Your task to perform on an android device: change your default location settings in chrome Image 0: 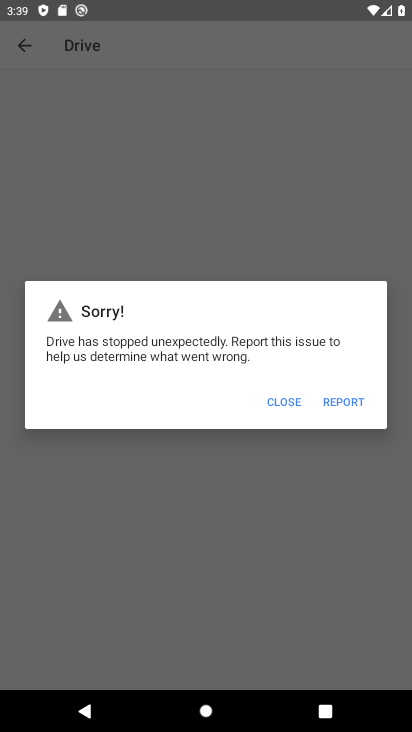
Step 0: press home button
Your task to perform on an android device: change your default location settings in chrome Image 1: 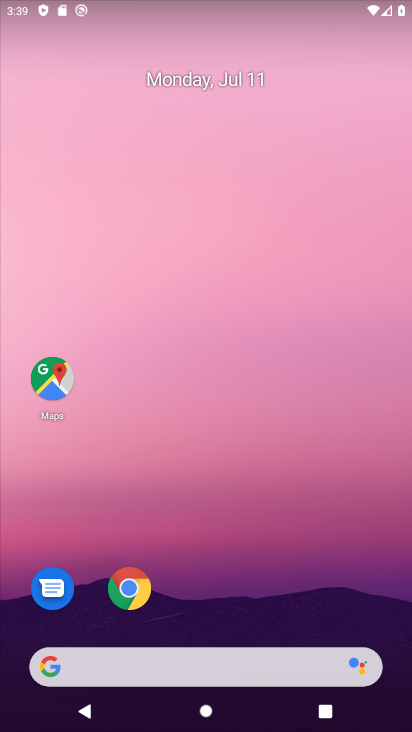
Step 1: click (137, 603)
Your task to perform on an android device: change your default location settings in chrome Image 2: 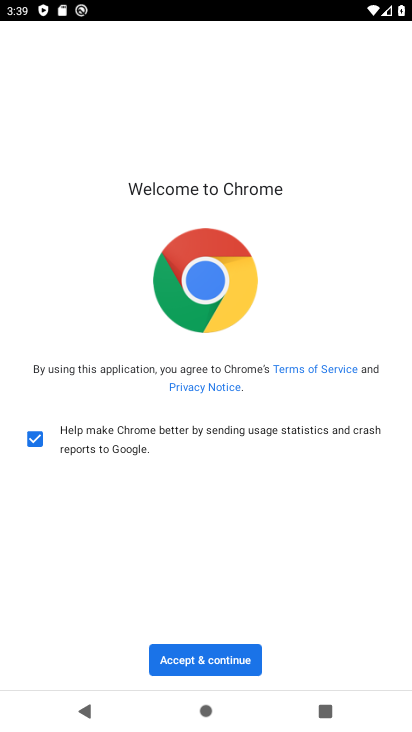
Step 2: click (180, 656)
Your task to perform on an android device: change your default location settings in chrome Image 3: 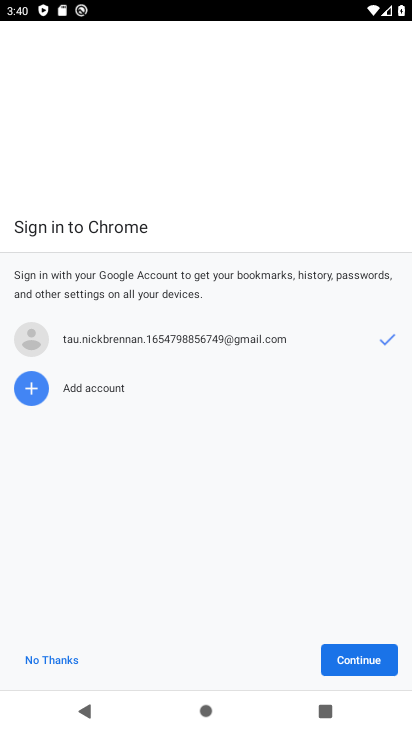
Step 3: click (339, 662)
Your task to perform on an android device: change your default location settings in chrome Image 4: 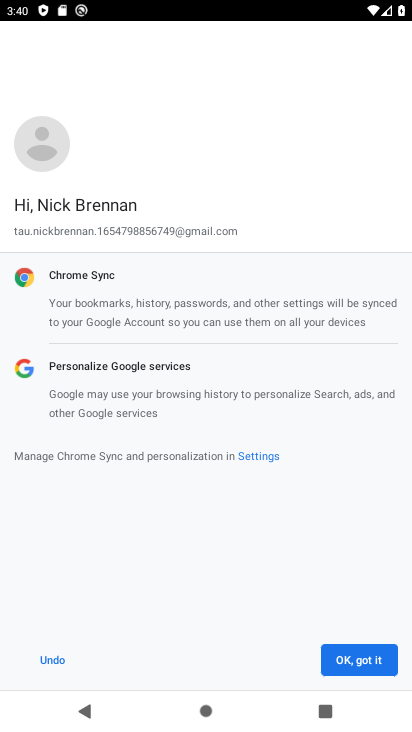
Step 4: click (339, 662)
Your task to perform on an android device: change your default location settings in chrome Image 5: 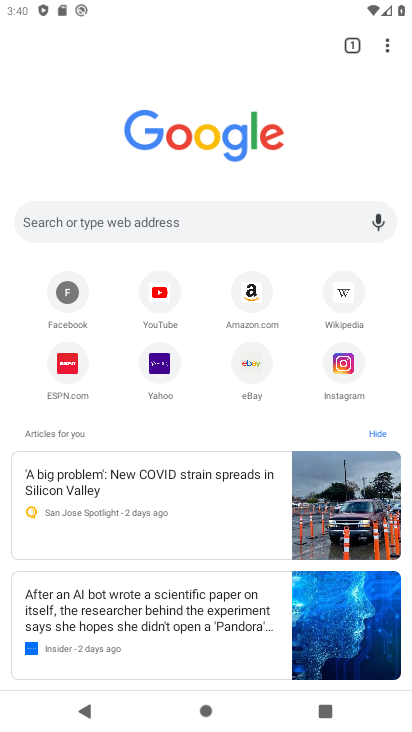
Step 5: drag from (387, 37) to (229, 381)
Your task to perform on an android device: change your default location settings in chrome Image 6: 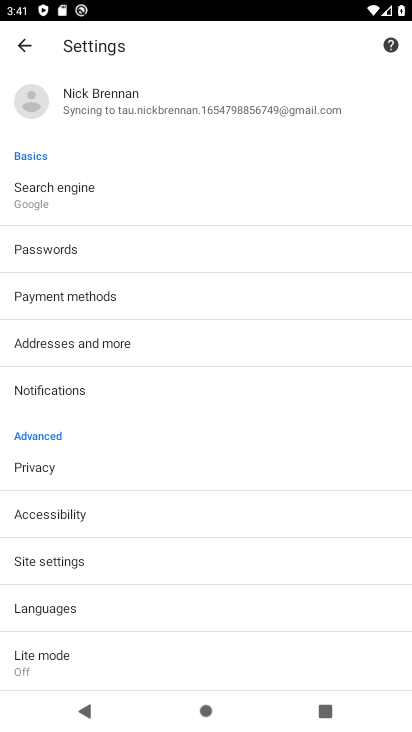
Step 6: click (112, 555)
Your task to perform on an android device: change your default location settings in chrome Image 7: 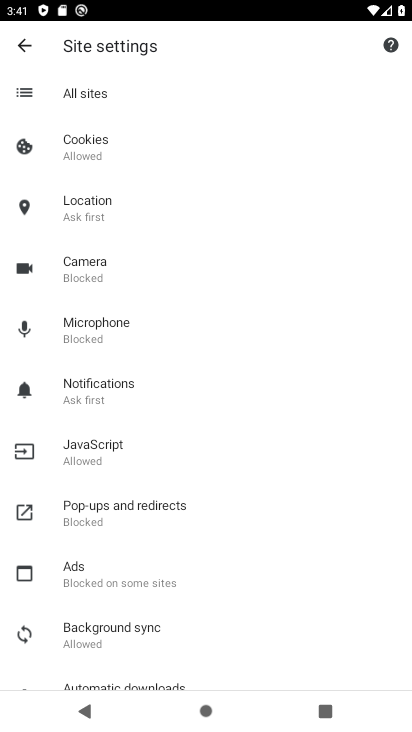
Step 7: click (127, 214)
Your task to perform on an android device: change your default location settings in chrome Image 8: 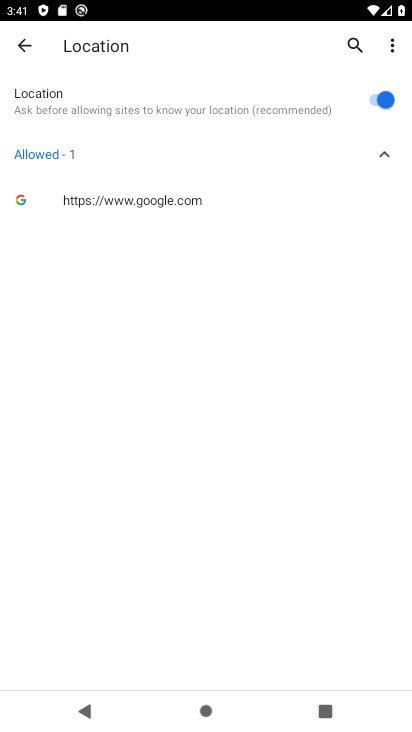
Step 8: click (382, 105)
Your task to perform on an android device: change your default location settings in chrome Image 9: 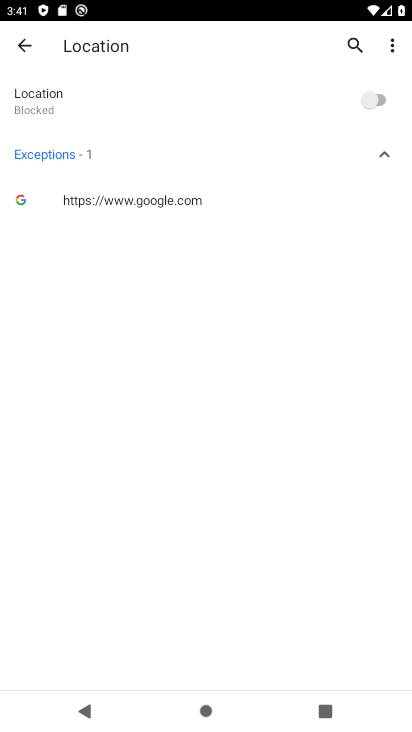
Step 9: task complete